Your task to perform on an android device: Go to Yahoo.com Image 0: 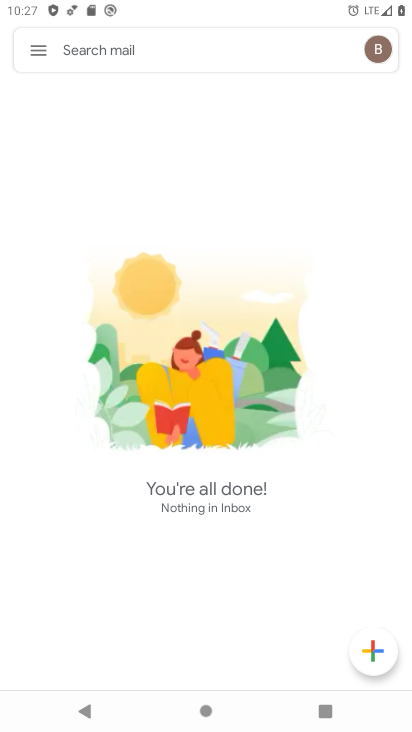
Step 0: press home button
Your task to perform on an android device: Go to Yahoo.com Image 1: 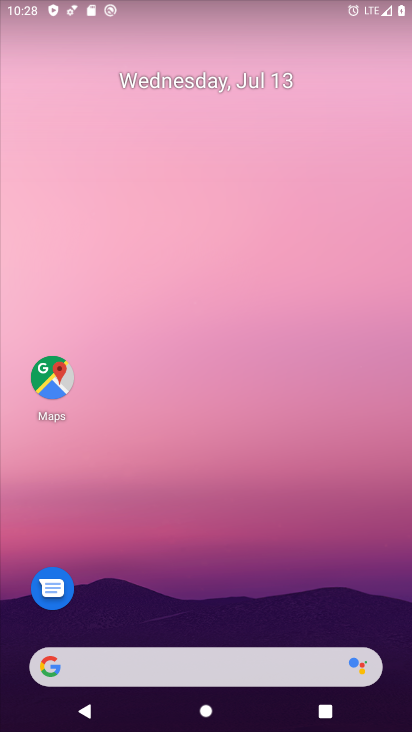
Step 1: click (220, 662)
Your task to perform on an android device: Go to Yahoo.com Image 2: 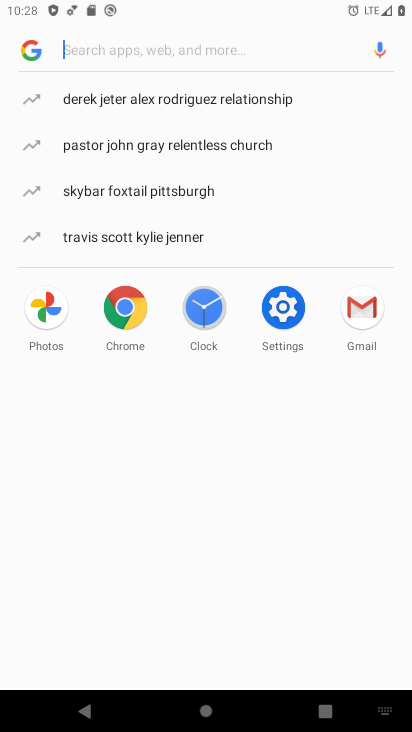
Step 2: type "yahoo.com"
Your task to perform on an android device: Go to Yahoo.com Image 3: 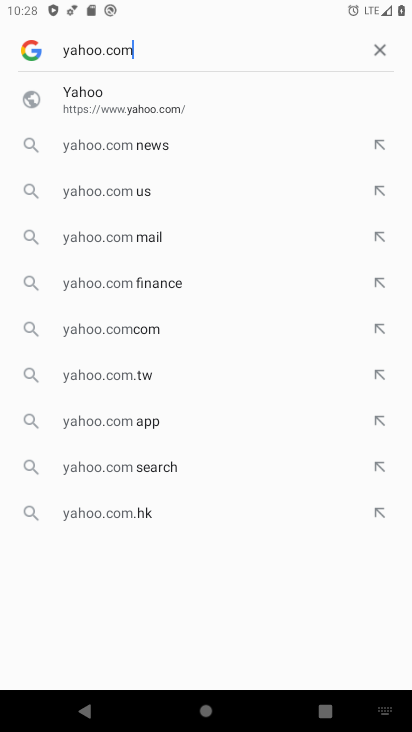
Step 3: click (223, 101)
Your task to perform on an android device: Go to Yahoo.com Image 4: 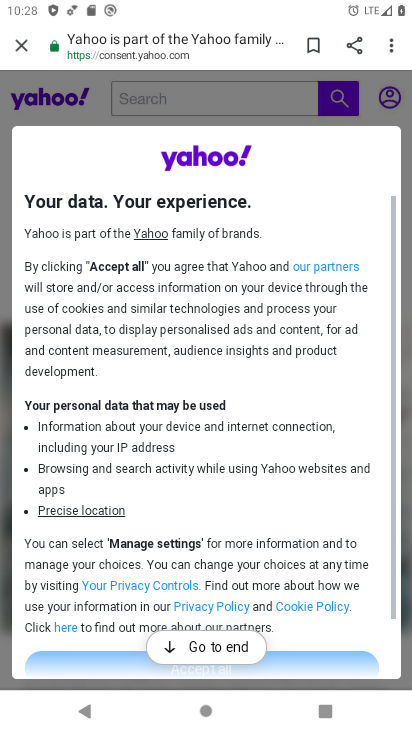
Step 4: task complete